Your task to perform on an android device: manage bookmarks in the chrome app Image 0: 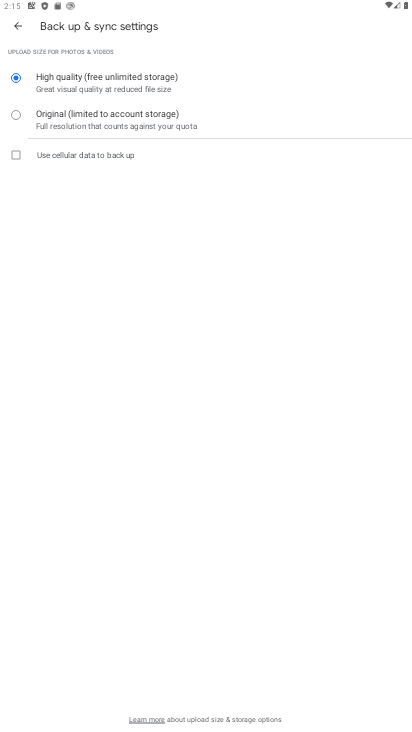
Step 0: press home button
Your task to perform on an android device: manage bookmarks in the chrome app Image 1: 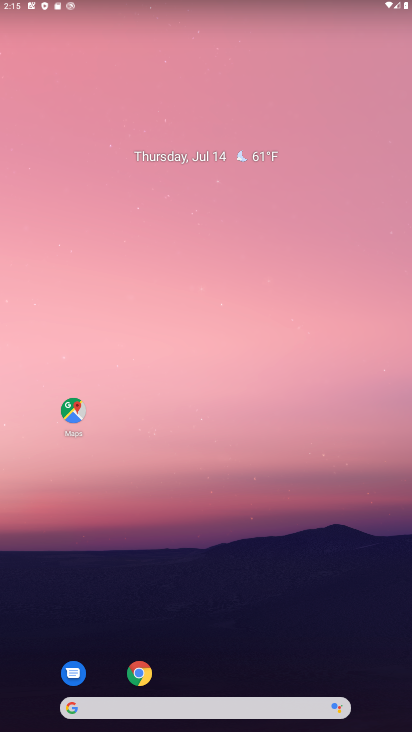
Step 1: click (144, 683)
Your task to perform on an android device: manage bookmarks in the chrome app Image 2: 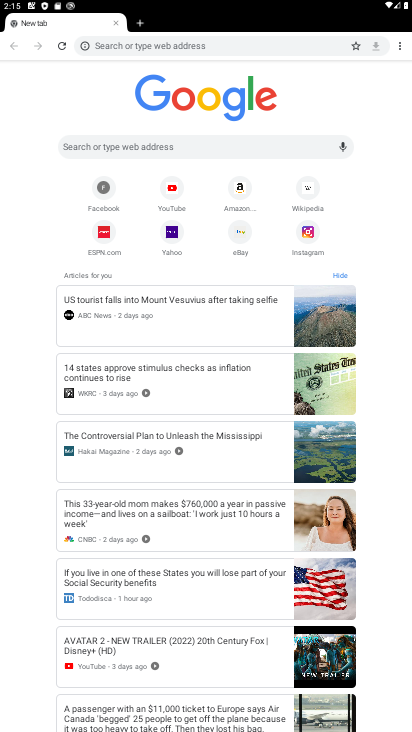
Step 2: click (404, 43)
Your task to perform on an android device: manage bookmarks in the chrome app Image 3: 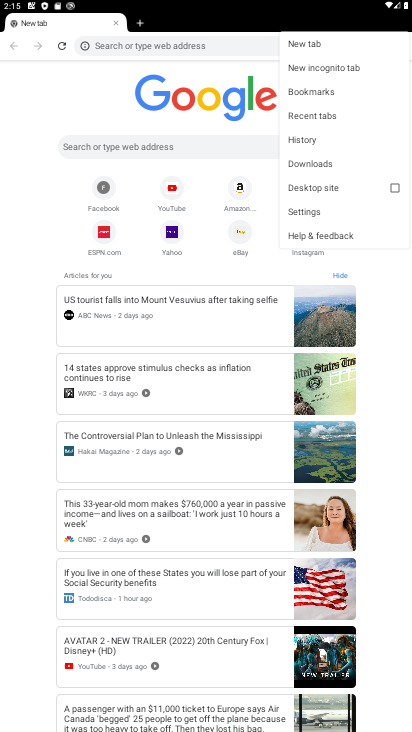
Step 3: click (311, 99)
Your task to perform on an android device: manage bookmarks in the chrome app Image 4: 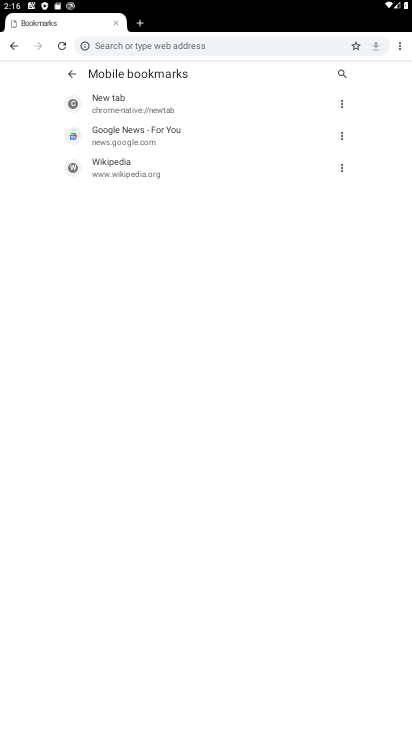
Step 4: click (346, 166)
Your task to perform on an android device: manage bookmarks in the chrome app Image 5: 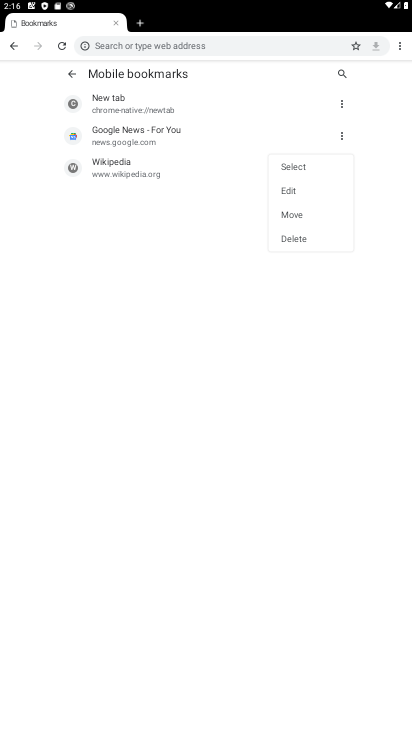
Step 5: click (284, 238)
Your task to perform on an android device: manage bookmarks in the chrome app Image 6: 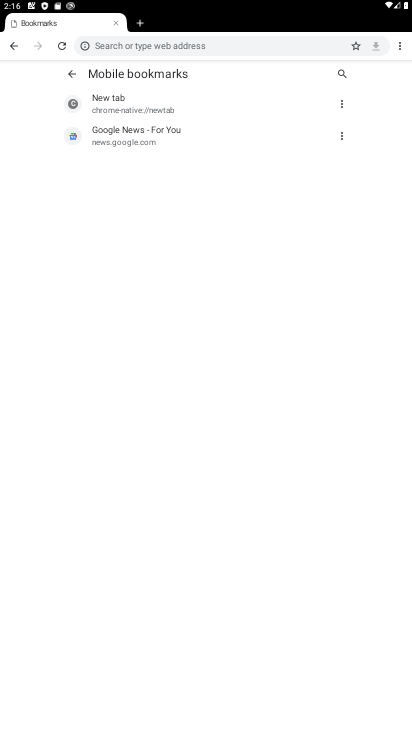
Step 6: task complete